Your task to perform on an android device: Open Google Image 0: 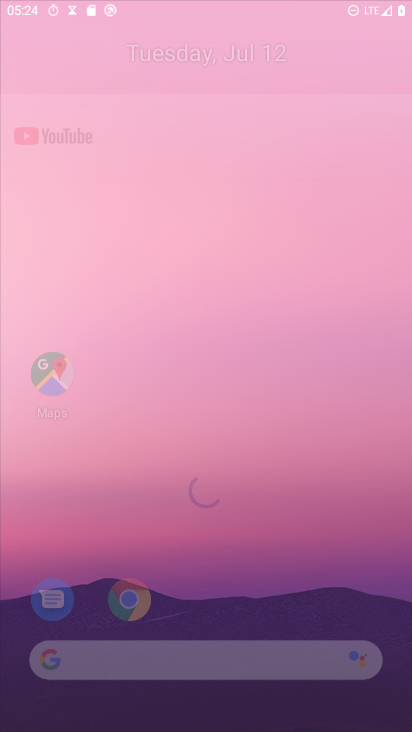
Step 0: drag from (307, 343) to (317, 54)
Your task to perform on an android device: Open Google Image 1: 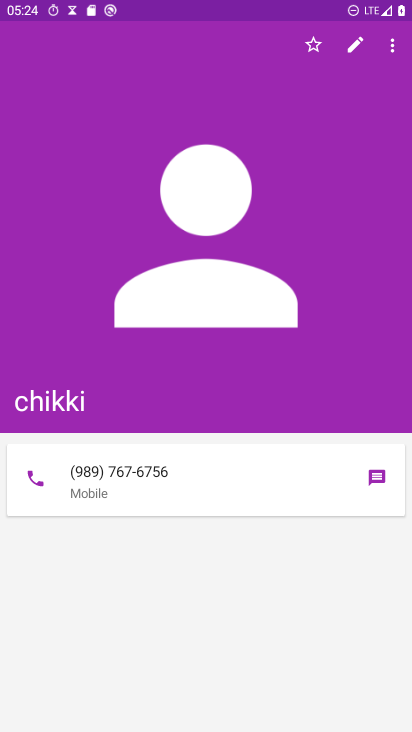
Step 1: press home button
Your task to perform on an android device: Open Google Image 2: 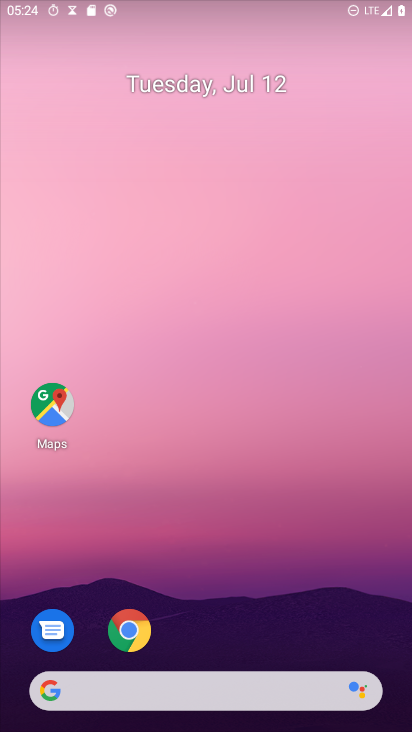
Step 2: drag from (169, 643) to (182, 41)
Your task to perform on an android device: Open Google Image 3: 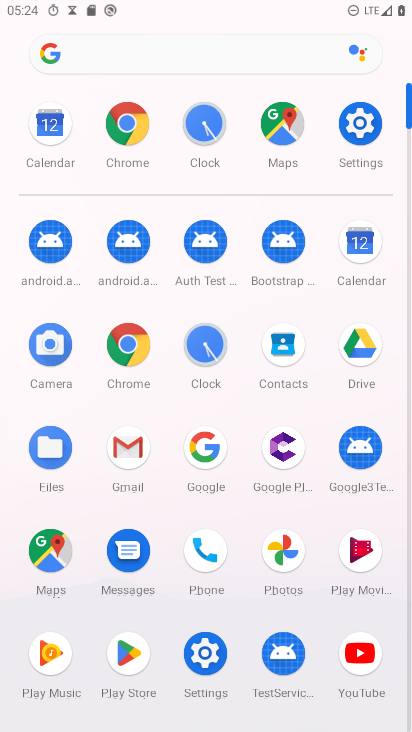
Step 3: click (120, 360)
Your task to perform on an android device: Open Google Image 4: 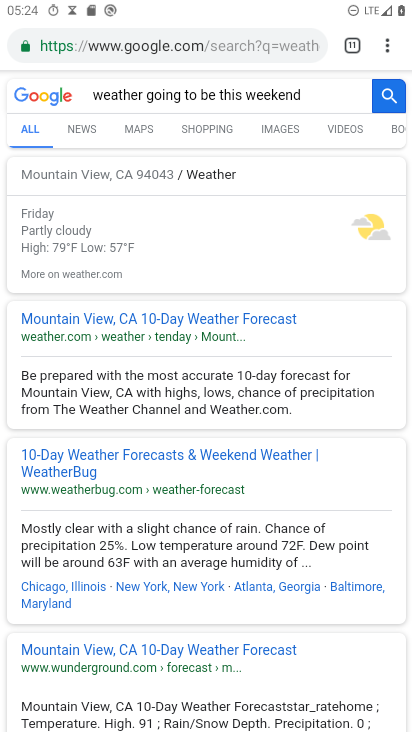
Step 4: task complete